Your task to perform on an android device: refresh tabs in the chrome app Image 0: 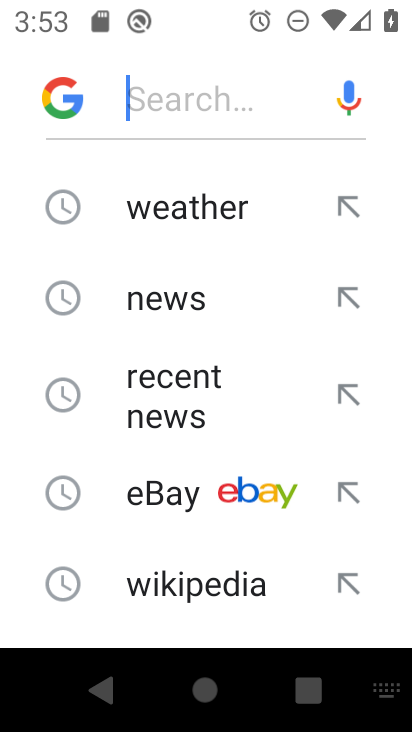
Step 0: press home button
Your task to perform on an android device: refresh tabs in the chrome app Image 1: 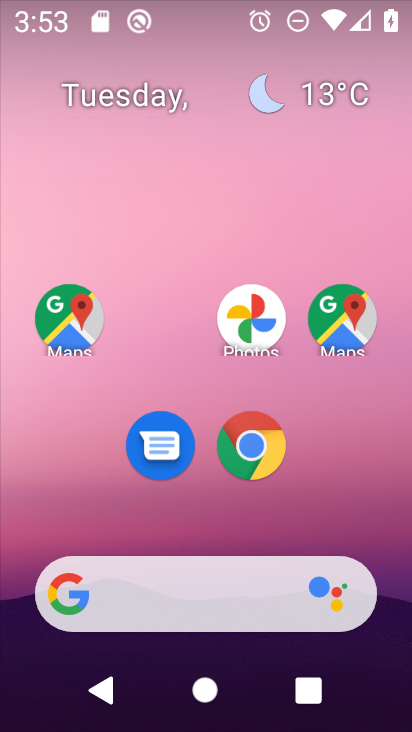
Step 1: drag from (385, 552) to (401, 149)
Your task to perform on an android device: refresh tabs in the chrome app Image 2: 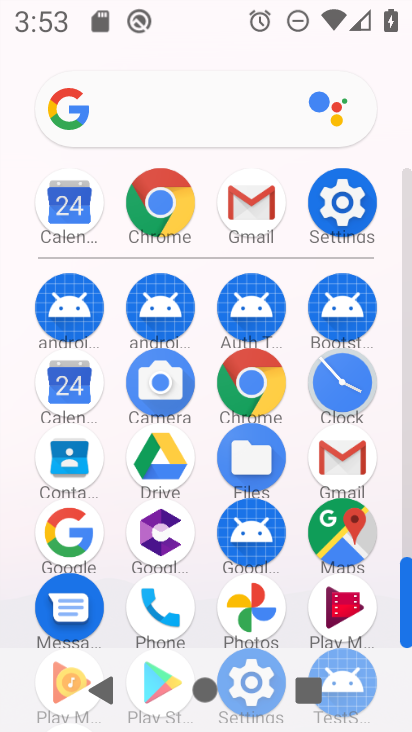
Step 2: click (271, 406)
Your task to perform on an android device: refresh tabs in the chrome app Image 3: 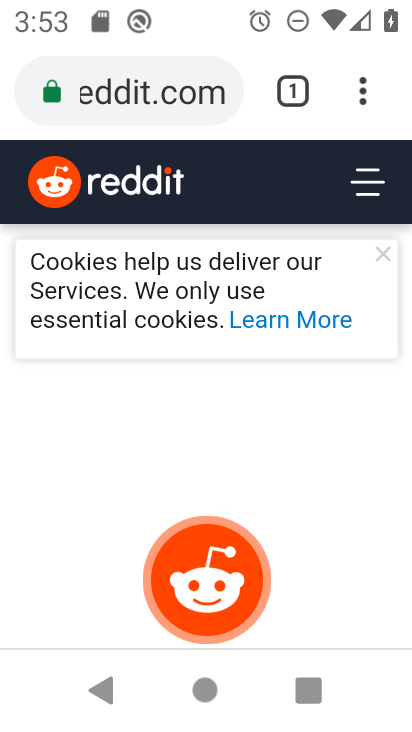
Step 3: click (364, 106)
Your task to perform on an android device: refresh tabs in the chrome app Image 4: 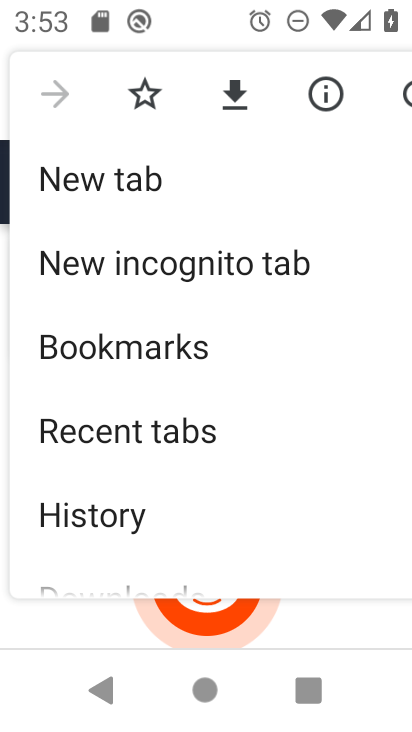
Step 4: click (409, 99)
Your task to perform on an android device: refresh tabs in the chrome app Image 5: 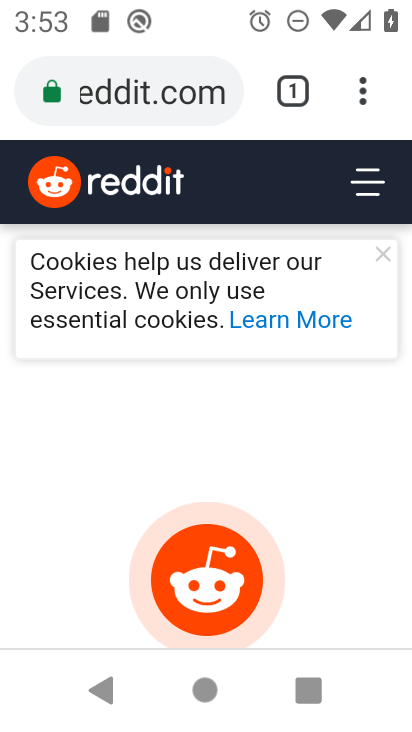
Step 5: task complete